Your task to perform on an android device: add a contact in the contacts app Image 0: 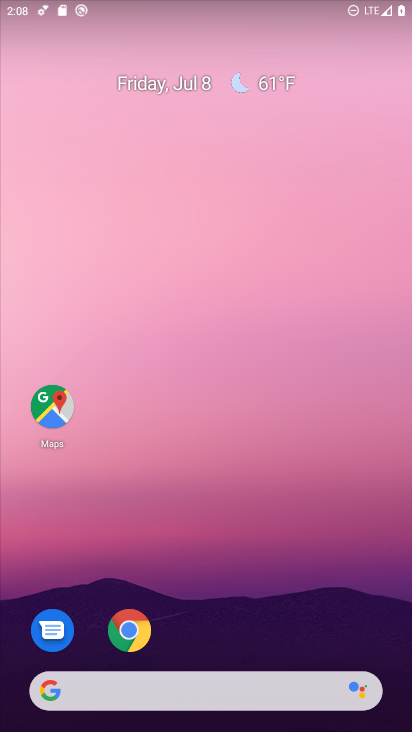
Step 0: drag from (375, 636) to (328, 19)
Your task to perform on an android device: add a contact in the contacts app Image 1: 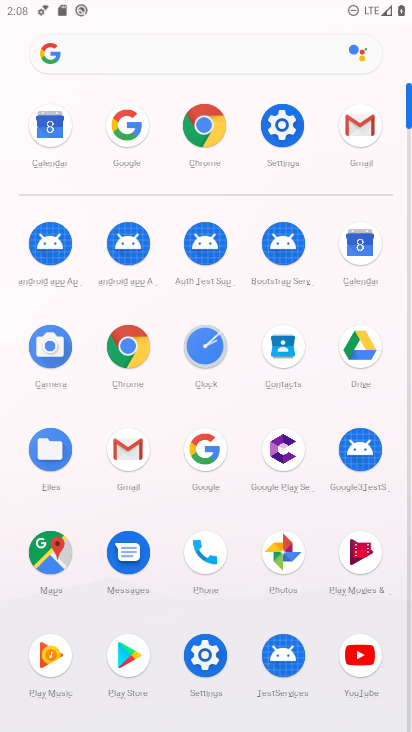
Step 1: click (294, 341)
Your task to perform on an android device: add a contact in the contacts app Image 2: 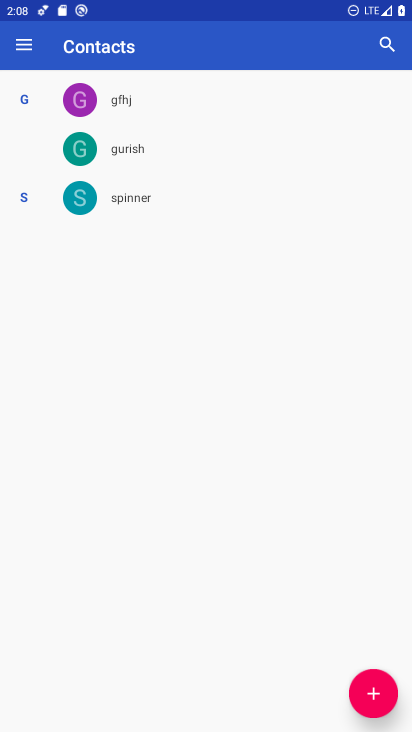
Step 2: click (371, 685)
Your task to perform on an android device: add a contact in the contacts app Image 3: 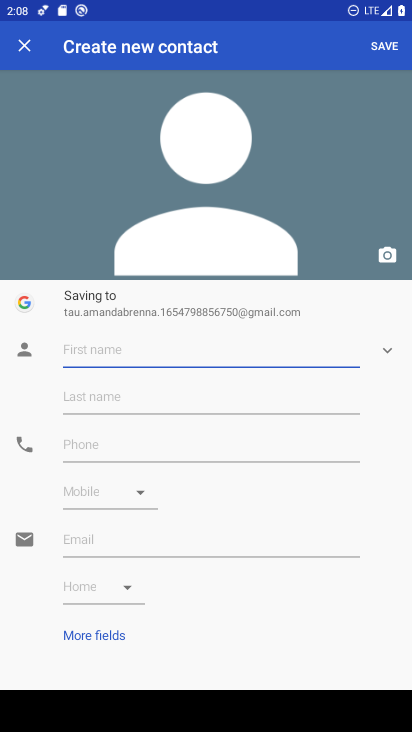
Step 3: type "dainsh"
Your task to perform on an android device: add a contact in the contacts app Image 4: 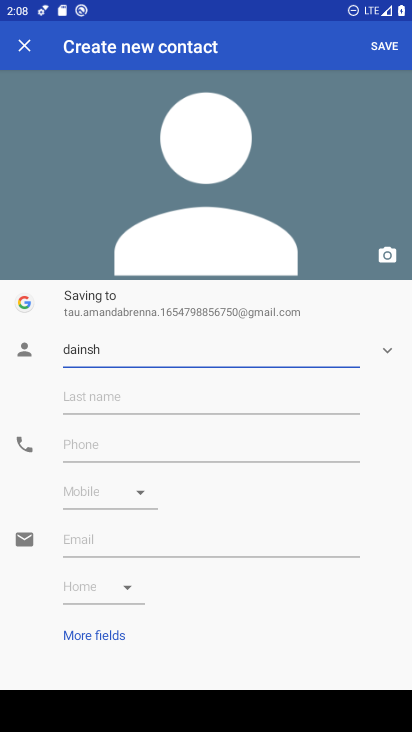
Step 4: click (396, 41)
Your task to perform on an android device: add a contact in the contacts app Image 5: 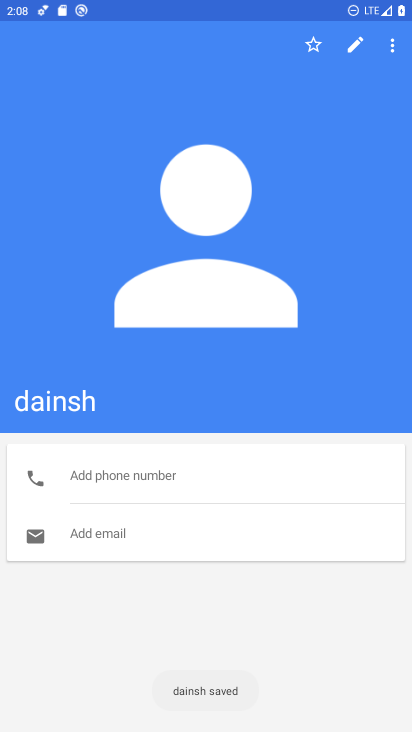
Step 5: task complete